Your task to perform on an android device: check google app version Image 0: 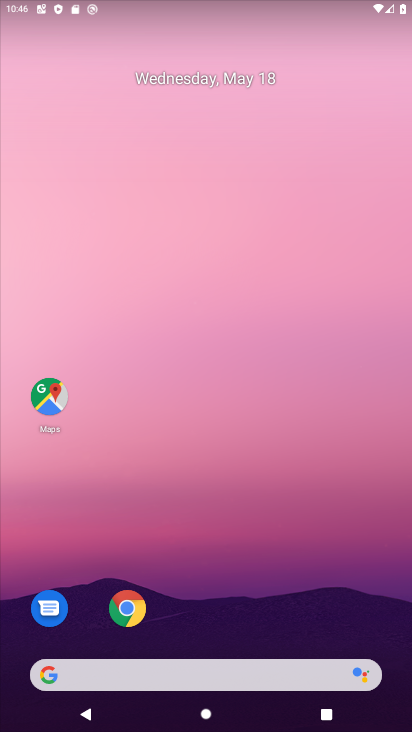
Step 0: press home button
Your task to perform on an android device: check google app version Image 1: 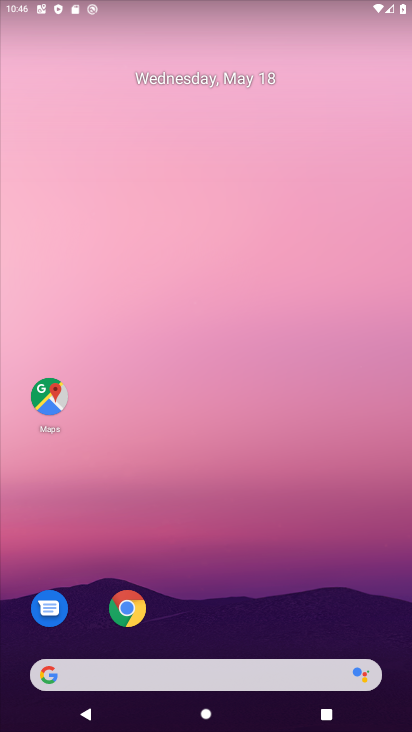
Step 1: drag from (285, 620) to (407, 26)
Your task to perform on an android device: check google app version Image 2: 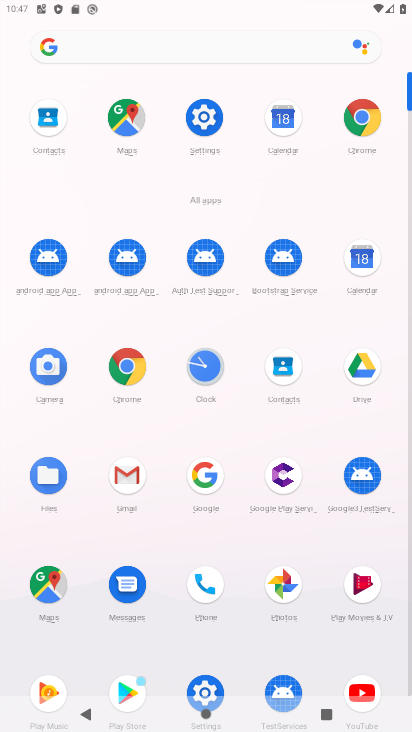
Step 2: click (203, 474)
Your task to perform on an android device: check google app version Image 3: 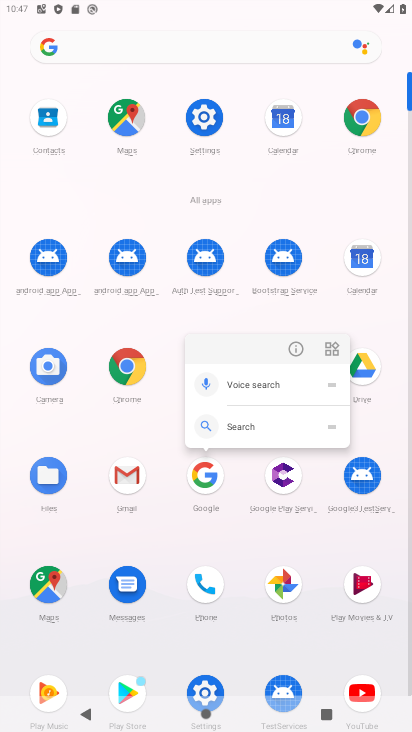
Step 3: click (290, 350)
Your task to perform on an android device: check google app version Image 4: 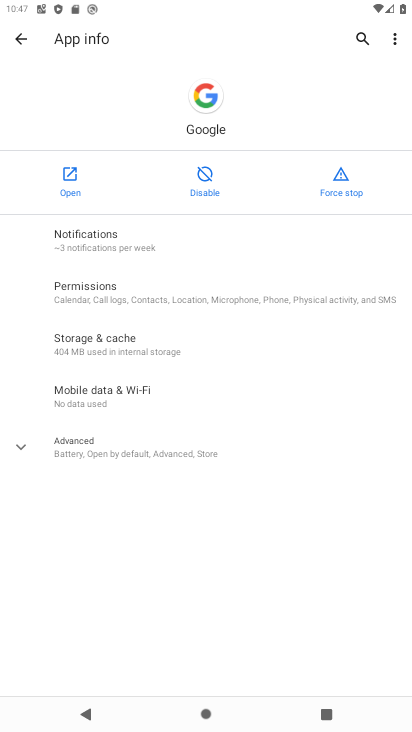
Step 4: drag from (305, 587) to (283, 282)
Your task to perform on an android device: check google app version Image 5: 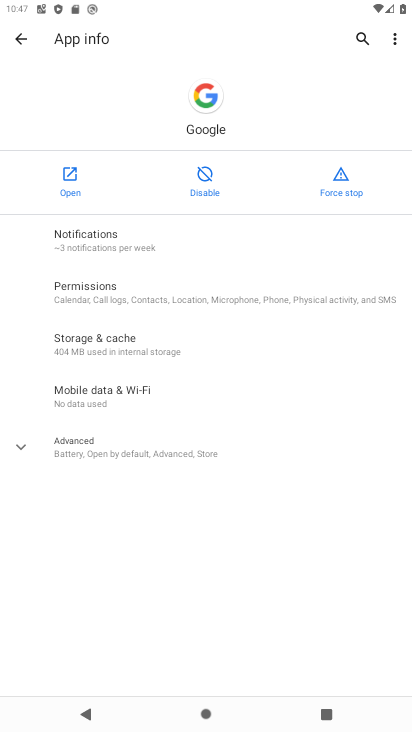
Step 5: click (138, 447)
Your task to perform on an android device: check google app version Image 6: 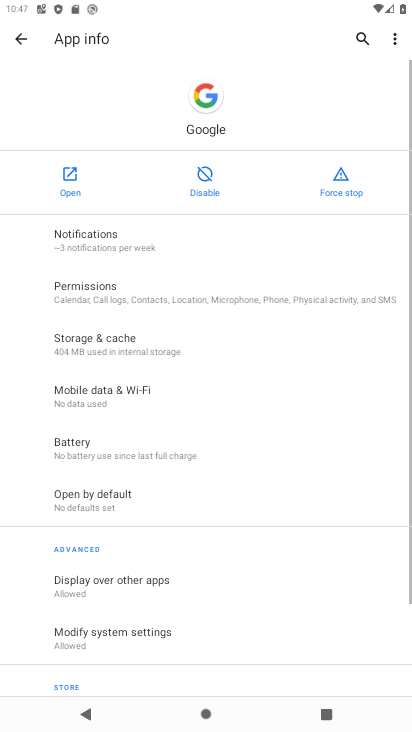
Step 6: task complete